Your task to perform on an android device: check out phone information Image 0: 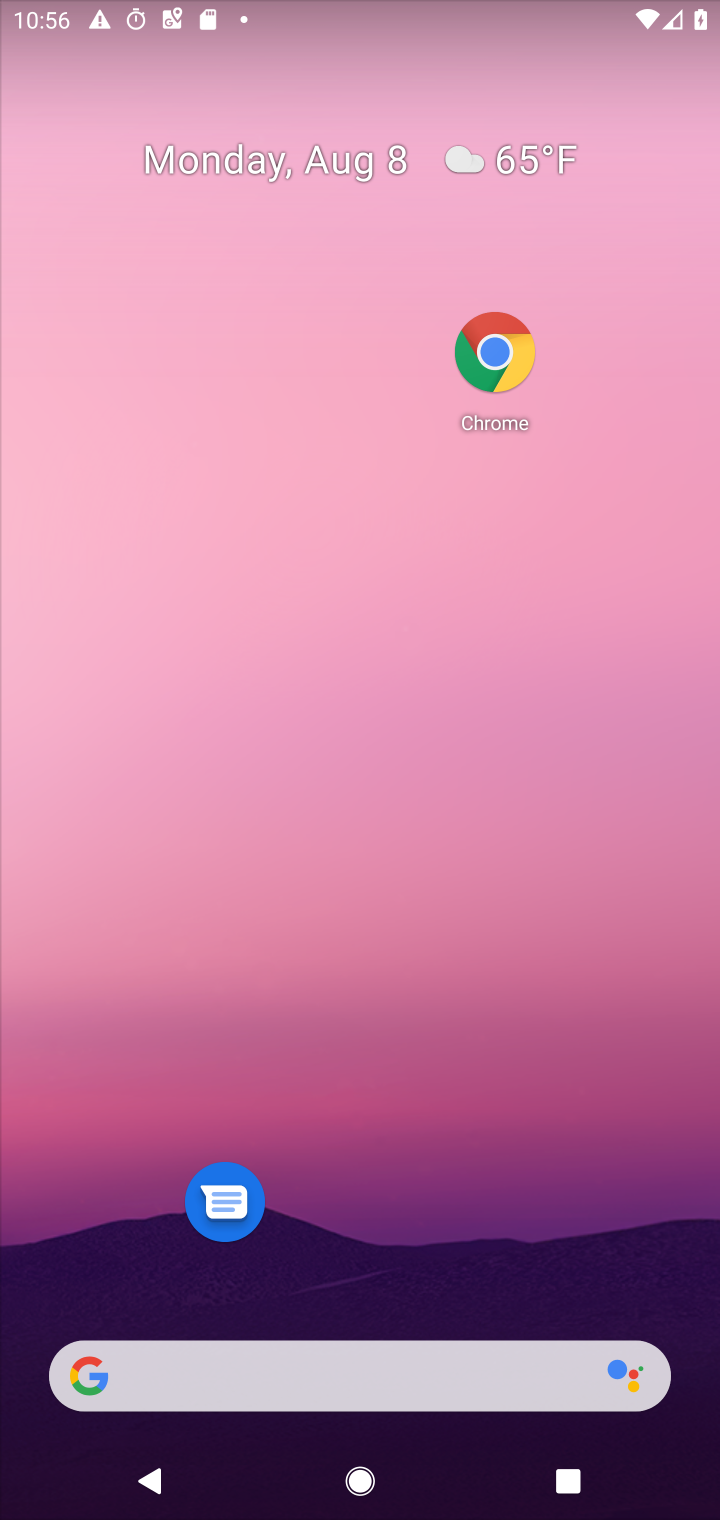
Step 0: drag from (577, 395) to (620, 233)
Your task to perform on an android device: check out phone information Image 1: 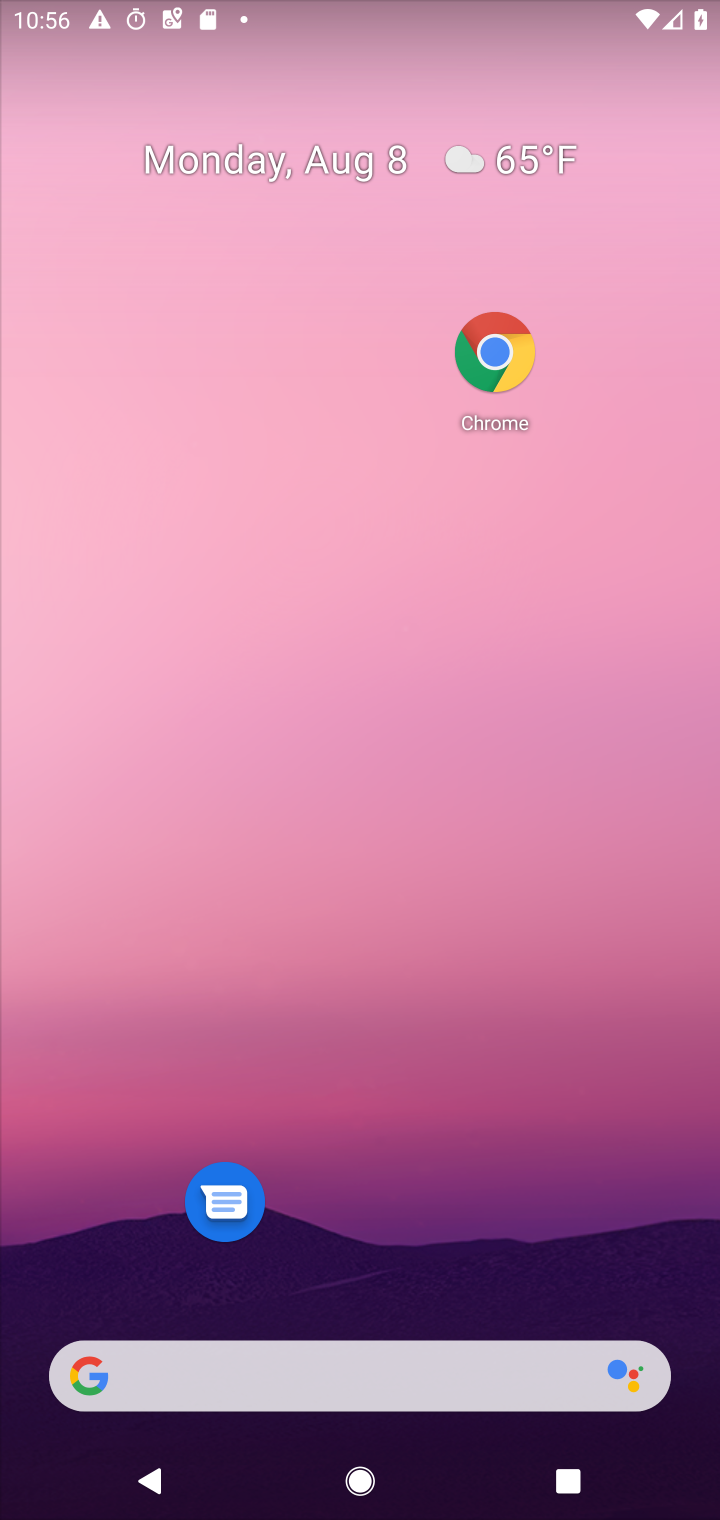
Step 1: drag from (516, 1211) to (539, 696)
Your task to perform on an android device: check out phone information Image 2: 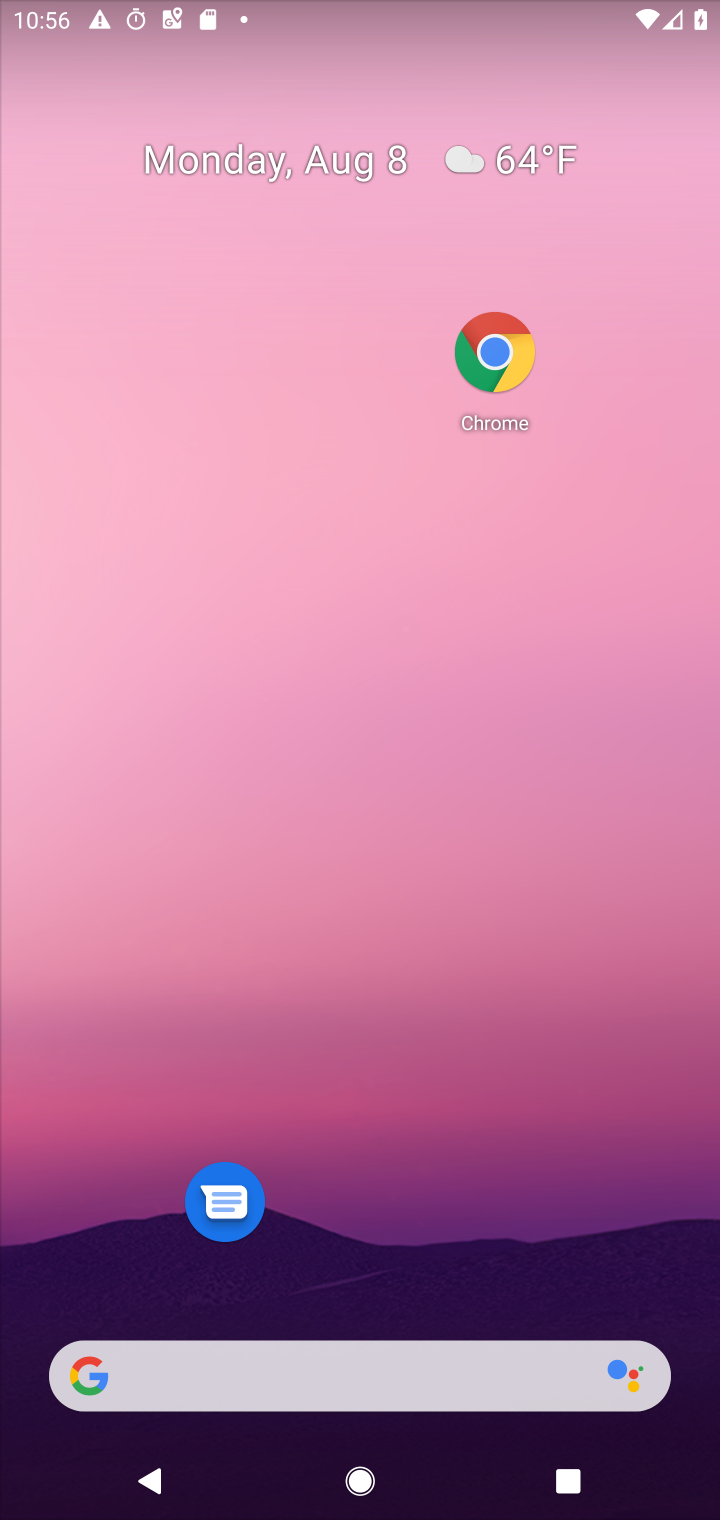
Step 2: drag from (406, 1251) to (384, 596)
Your task to perform on an android device: check out phone information Image 3: 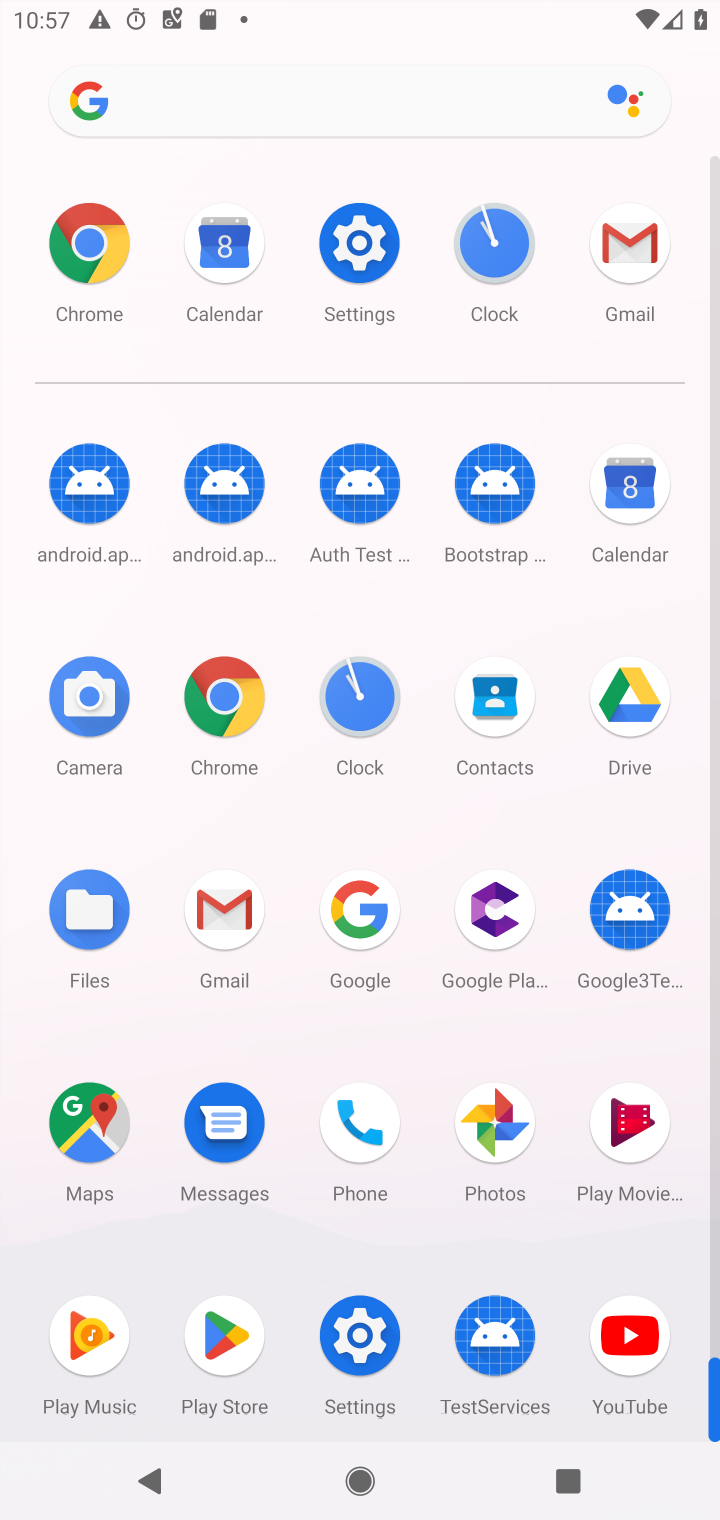
Step 3: click (377, 265)
Your task to perform on an android device: check out phone information Image 4: 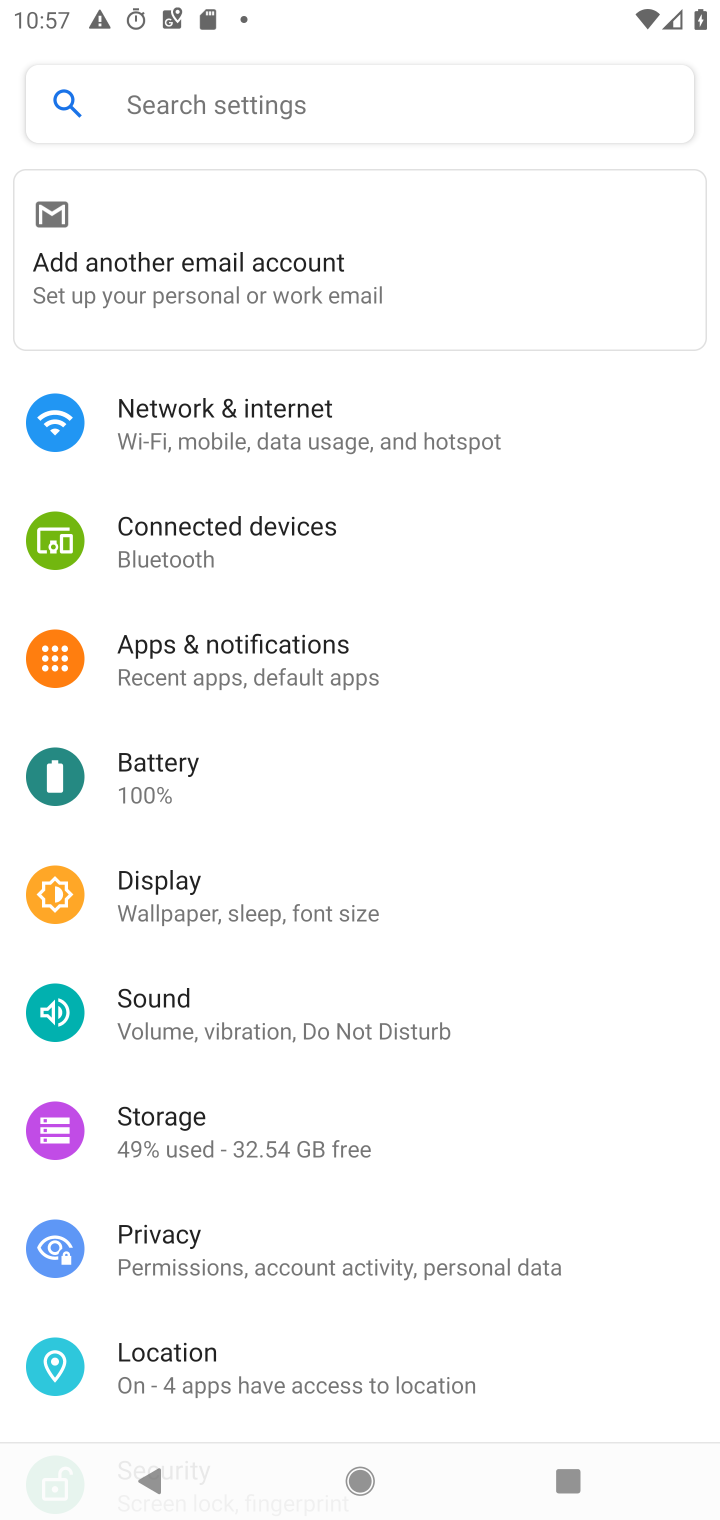
Step 4: drag from (346, 1283) to (402, 561)
Your task to perform on an android device: check out phone information Image 5: 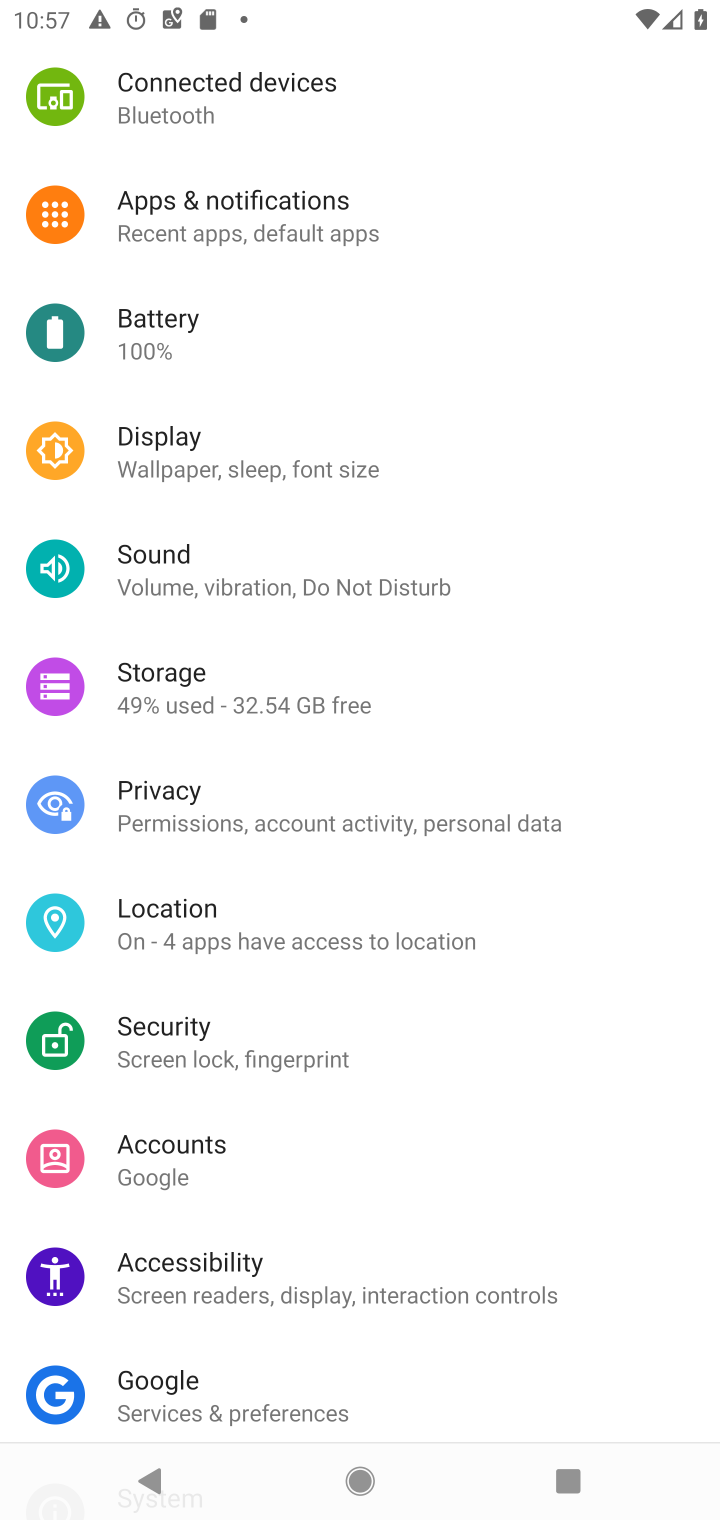
Step 5: drag from (299, 1215) to (225, 537)
Your task to perform on an android device: check out phone information Image 6: 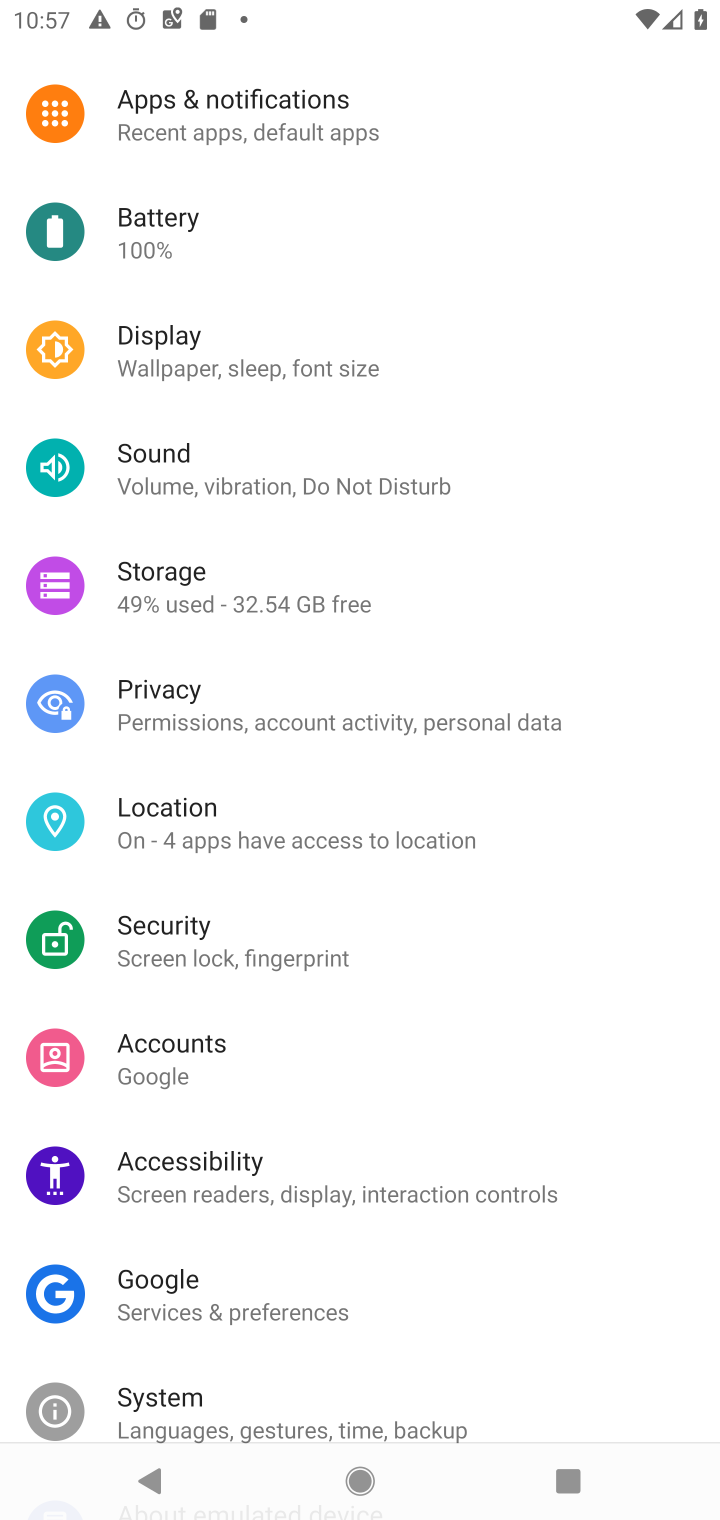
Step 6: drag from (235, 1281) to (240, 396)
Your task to perform on an android device: check out phone information Image 7: 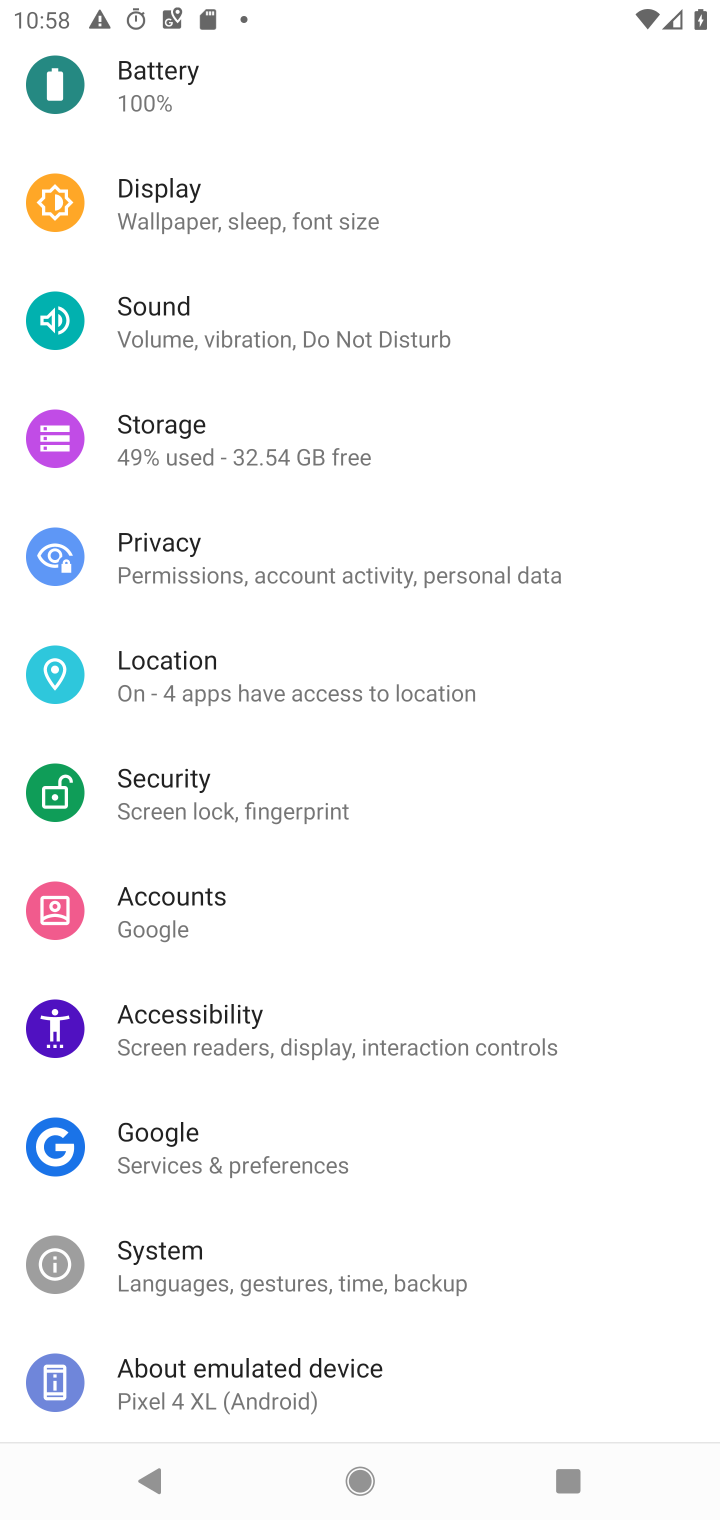
Step 7: drag from (212, 1124) to (204, 483)
Your task to perform on an android device: check out phone information Image 8: 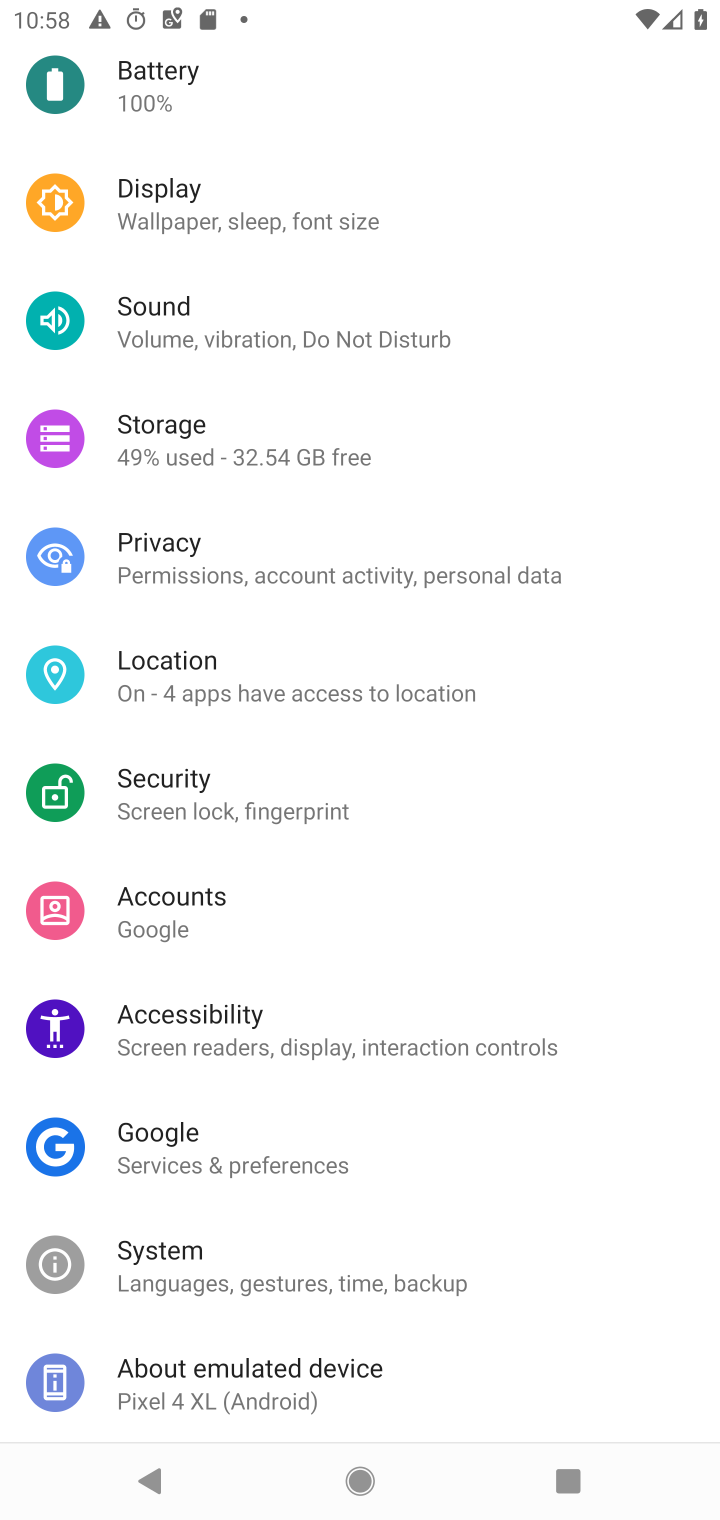
Step 8: click (211, 1378)
Your task to perform on an android device: check out phone information Image 9: 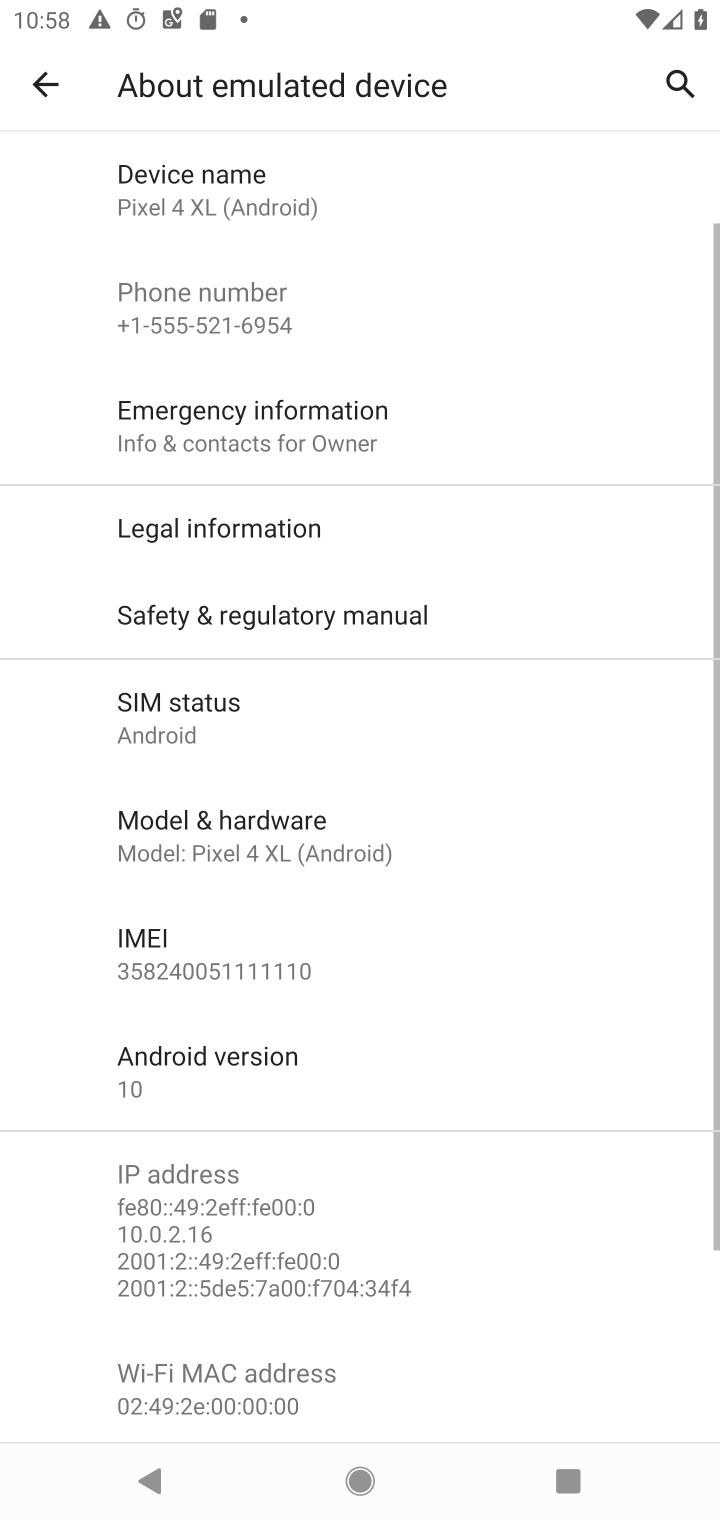
Step 9: task complete